Your task to perform on an android device: Open Google Chrome Image 0: 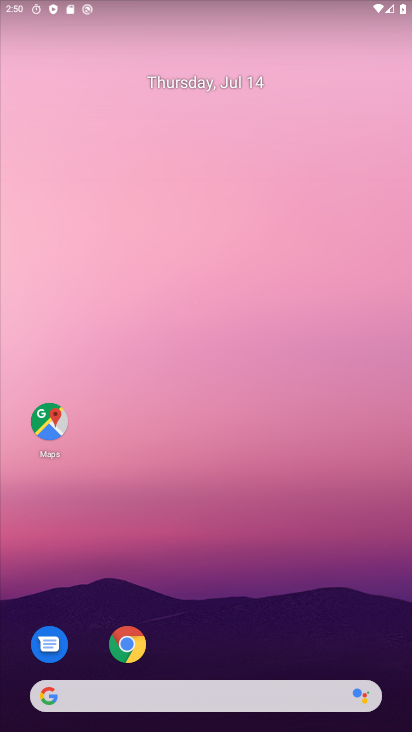
Step 0: click (135, 653)
Your task to perform on an android device: Open Google Chrome Image 1: 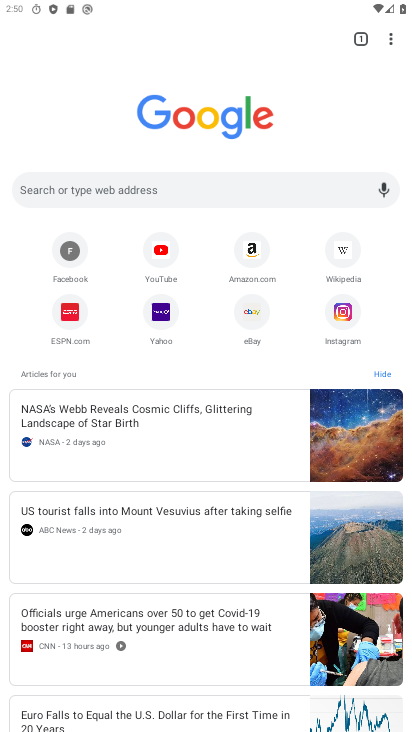
Step 1: task complete